Your task to perform on an android device: set default search engine in the chrome app Image 0: 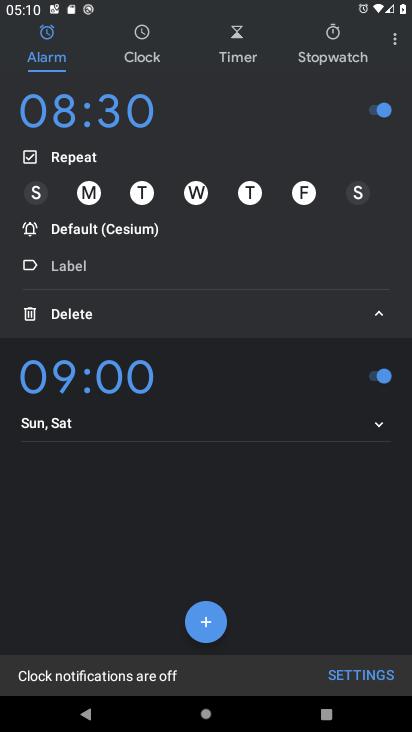
Step 0: press home button
Your task to perform on an android device: set default search engine in the chrome app Image 1: 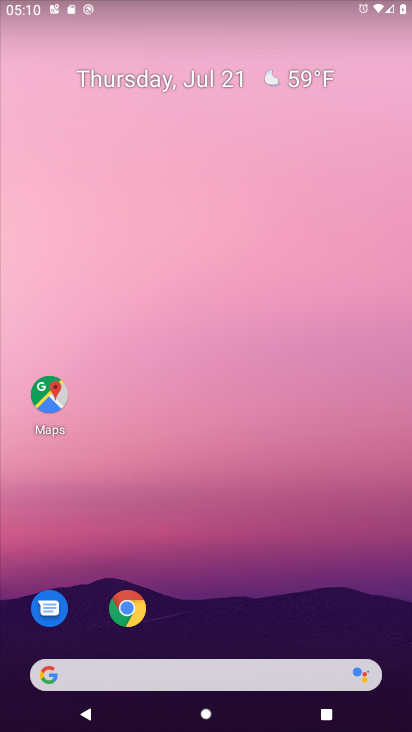
Step 1: drag from (127, 631) to (237, 65)
Your task to perform on an android device: set default search engine in the chrome app Image 2: 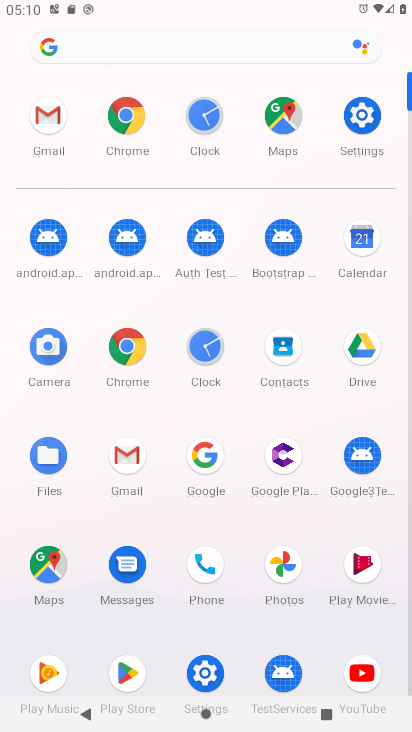
Step 2: click (138, 345)
Your task to perform on an android device: set default search engine in the chrome app Image 3: 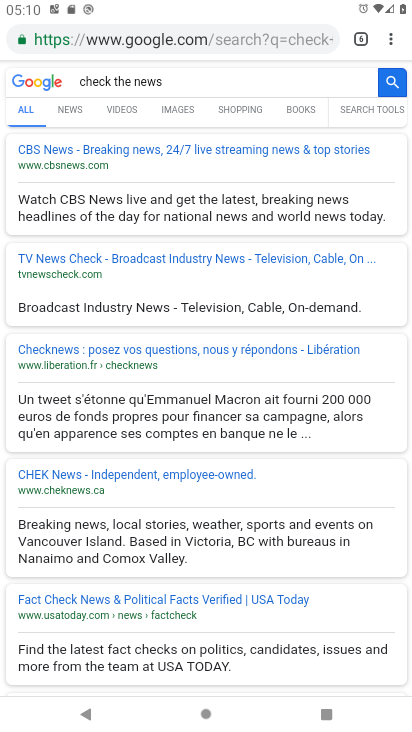
Step 3: drag from (386, 32) to (296, 425)
Your task to perform on an android device: set default search engine in the chrome app Image 4: 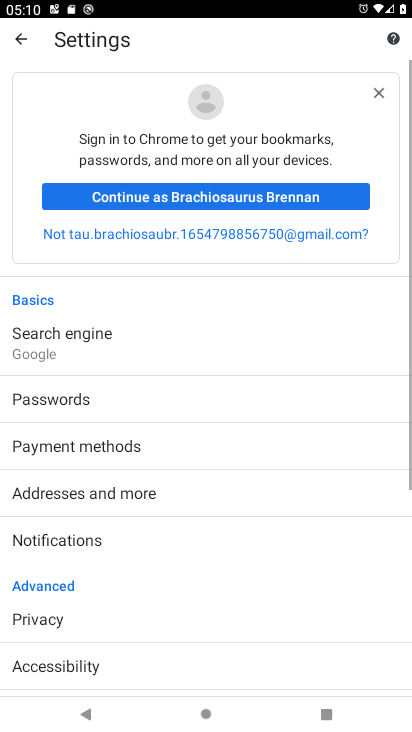
Step 4: click (122, 359)
Your task to perform on an android device: set default search engine in the chrome app Image 5: 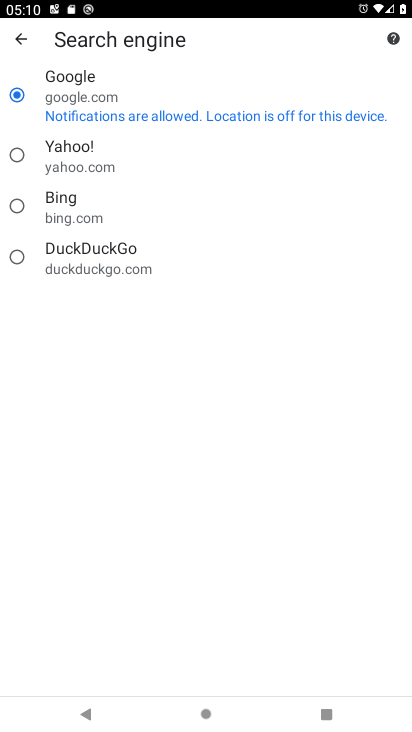
Step 5: task complete